Your task to perform on an android device: manage bookmarks in the chrome app Image 0: 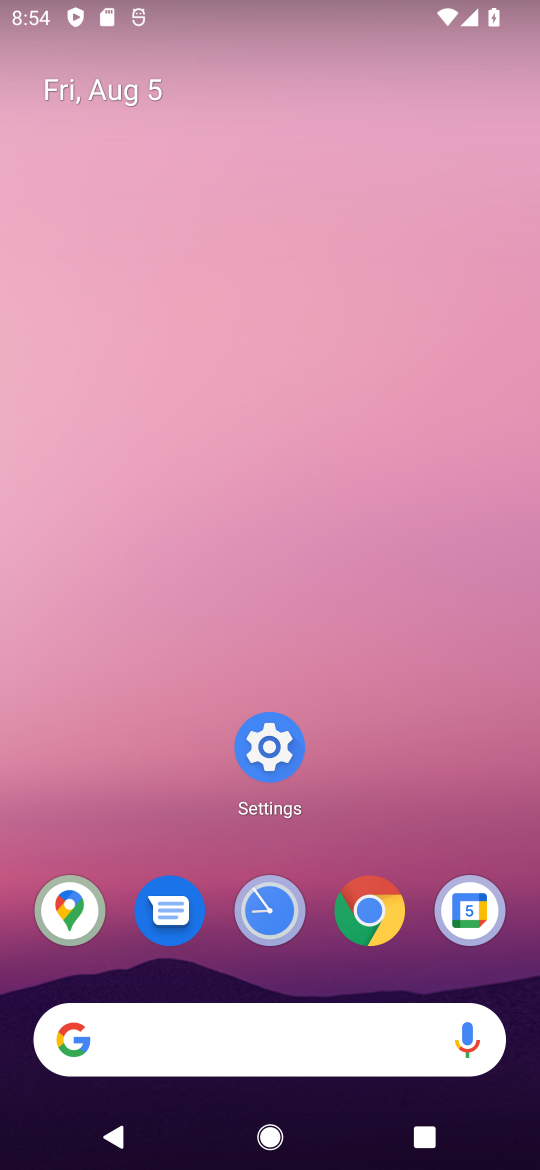
Step 0: press home button
Your task to perform on an android device: manage bookmarks in the chrome app Image 1: 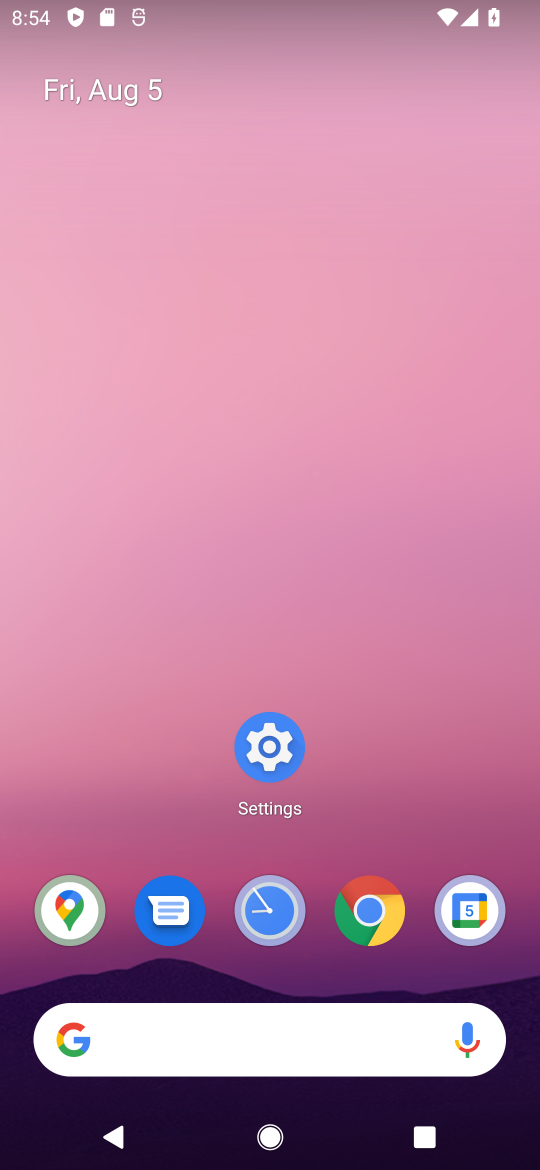
Step 1: click (363, 905)
Your task to perform on an android device: manage bookmarks in the chrome app Image 2: 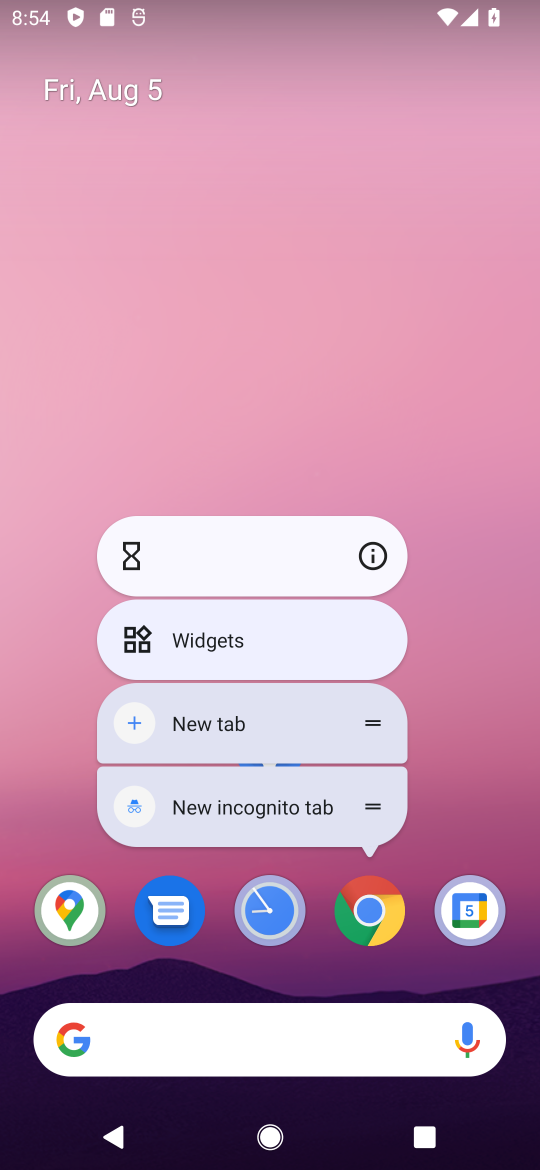
Step 2: click (363, 907)
Your task to perform on an android device: manage bookmarks in the chrome app Image 3: 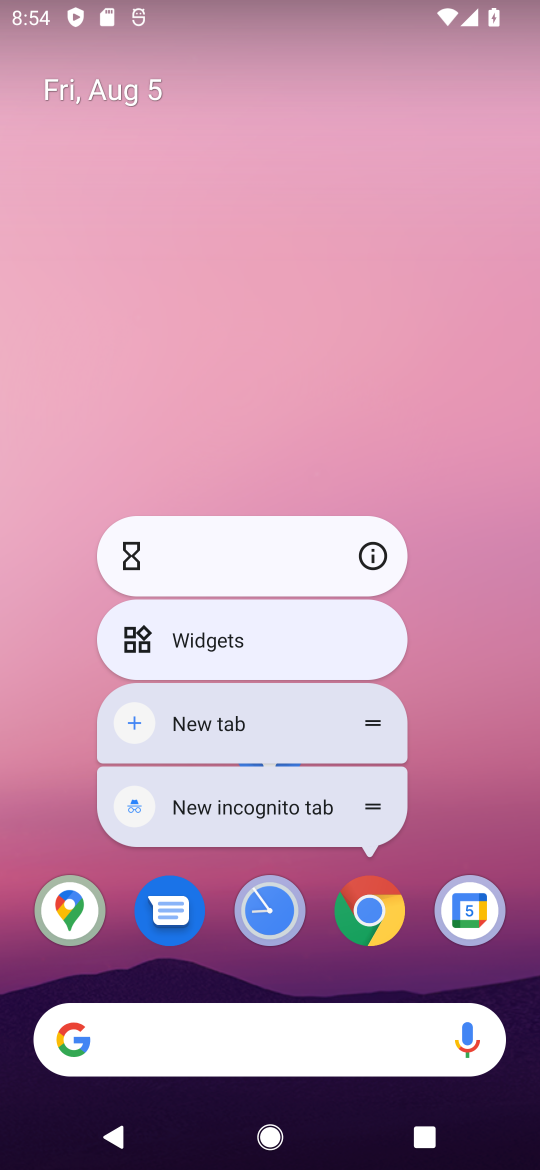
Step 3: click (374, 915)
Your task to perform on an android device: manage bookmarks in the chrome app Image 4: 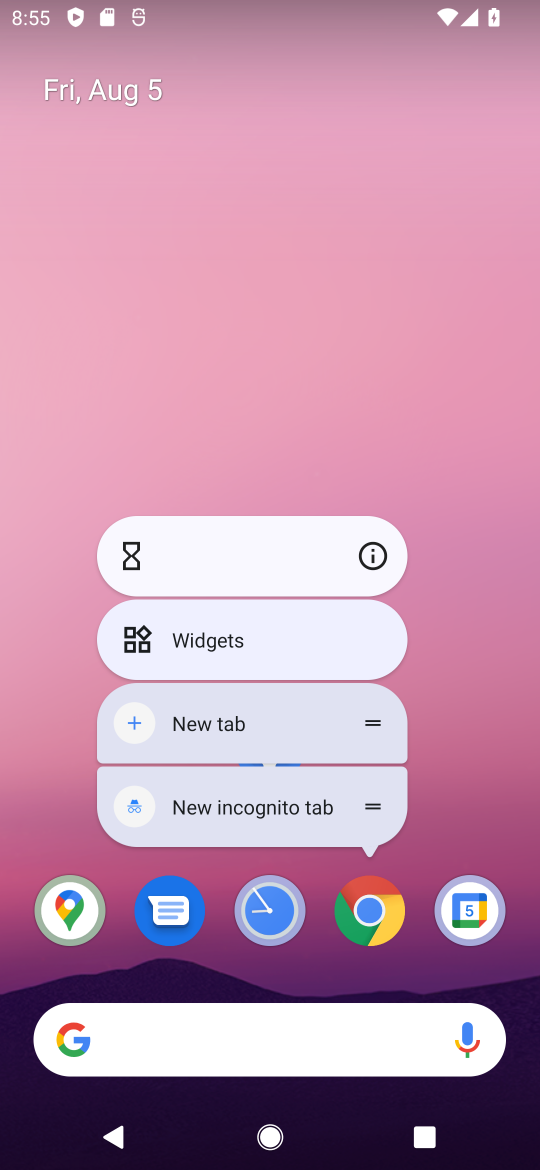
Step 4: click (374, 917)
Your task to perform on an android device: manage bookmarks in the chrome app Image 5: 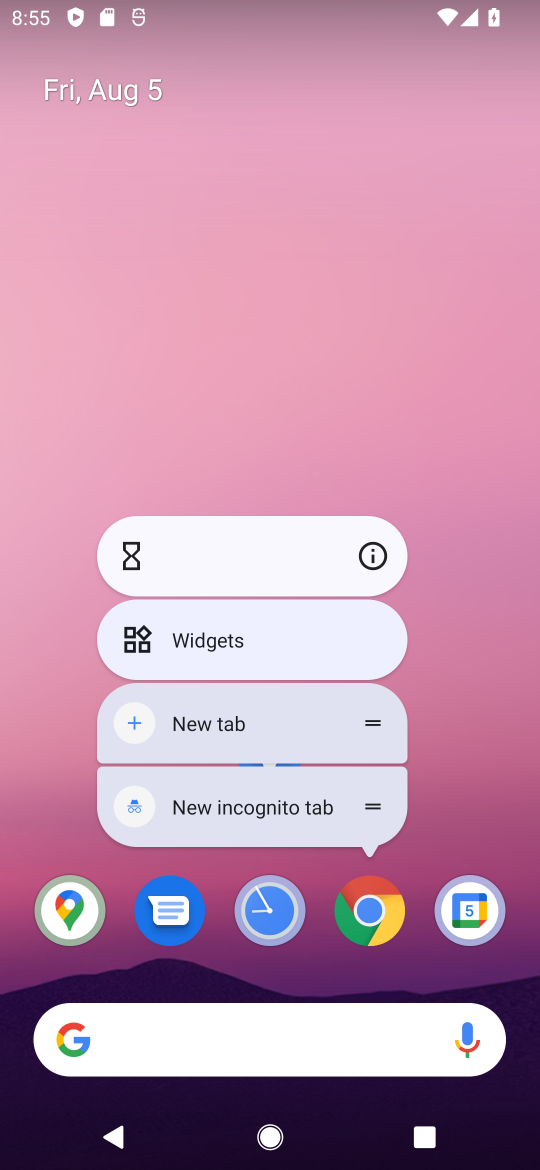
Step 5: click (374, 914)
Your task to perform on an android device: manage bookmarks in the chrome app Image 6: 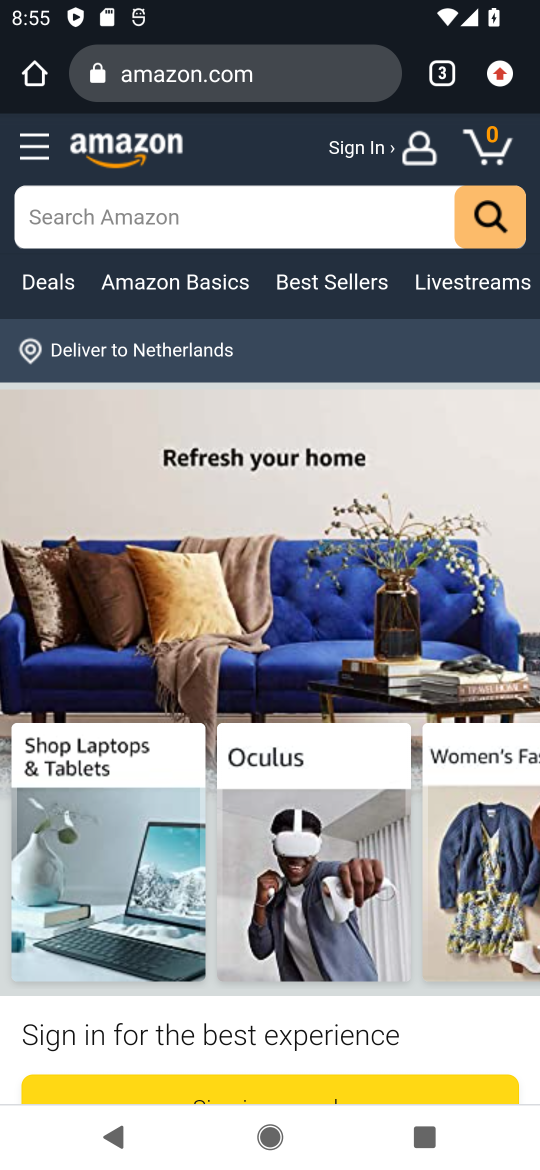
Step 6: drag from (504, 77) to (292, 534)
Your task to perform on an android device: manage bookmarks in the chrome app Image 7: 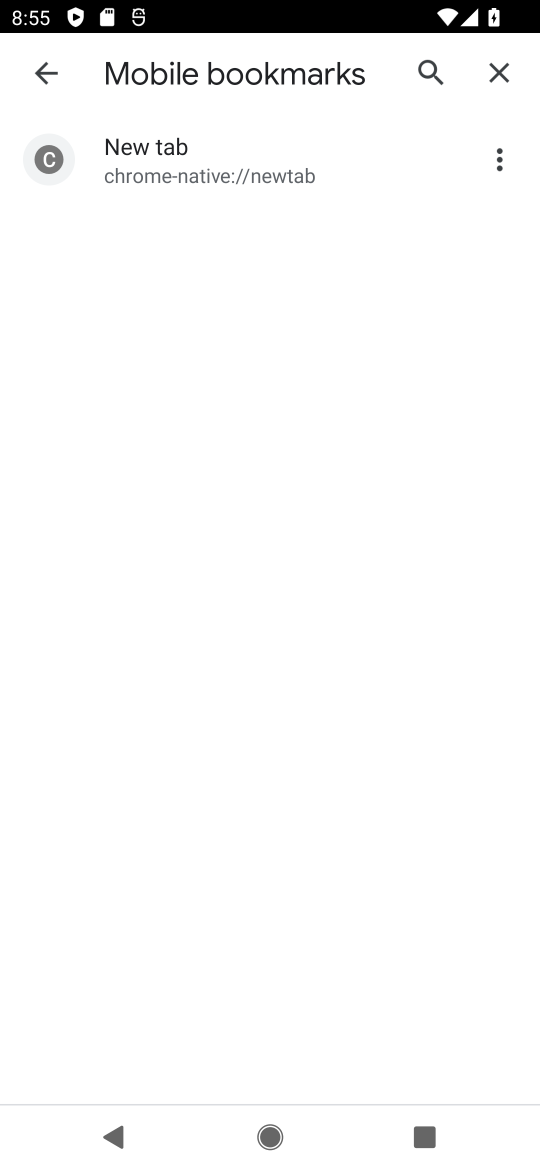
Step 7: click (499, 155)
Your task to perform on an android device: manage bookmarks in the chrome app Image 8: 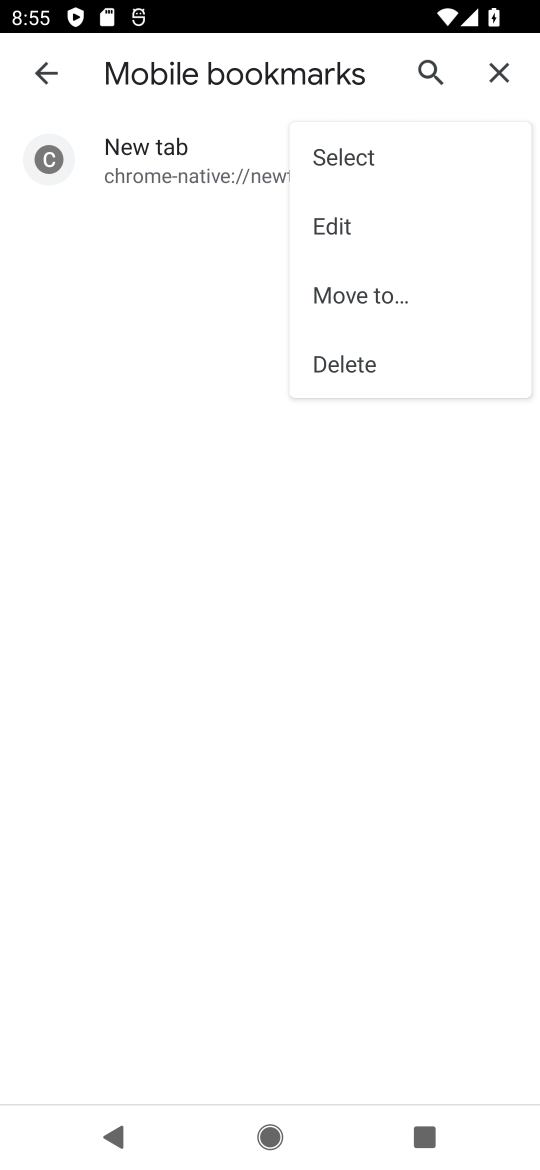
Step 8: click (340, 355)
Your task to perform on an android device: manage bookmarks in the chrome app Image 9: 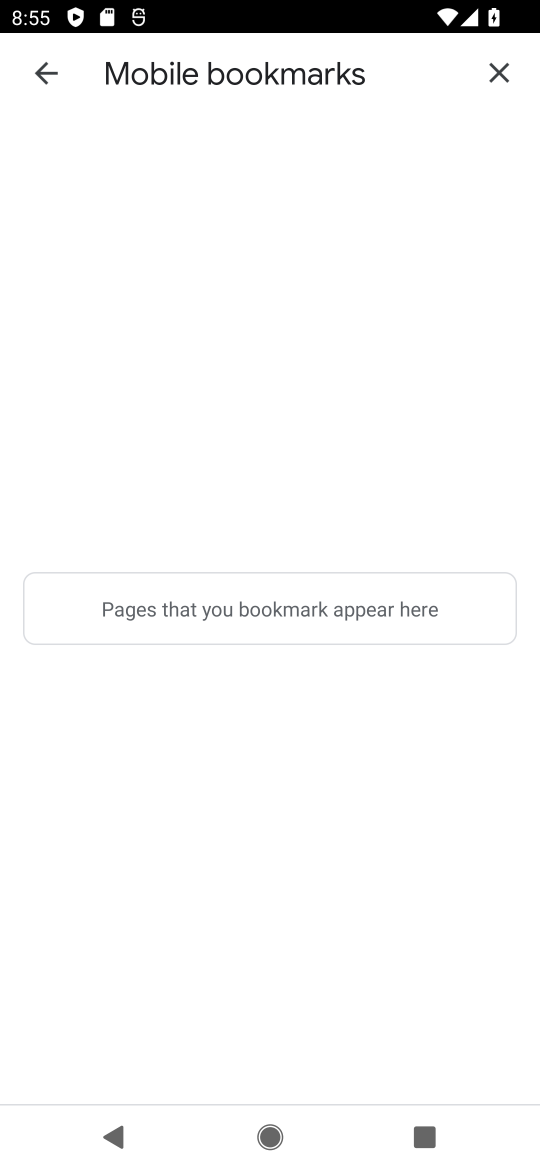
Step 9: task complete